Your task to perform on an android device: uninstall "Microsoft Outlook" Image 0: 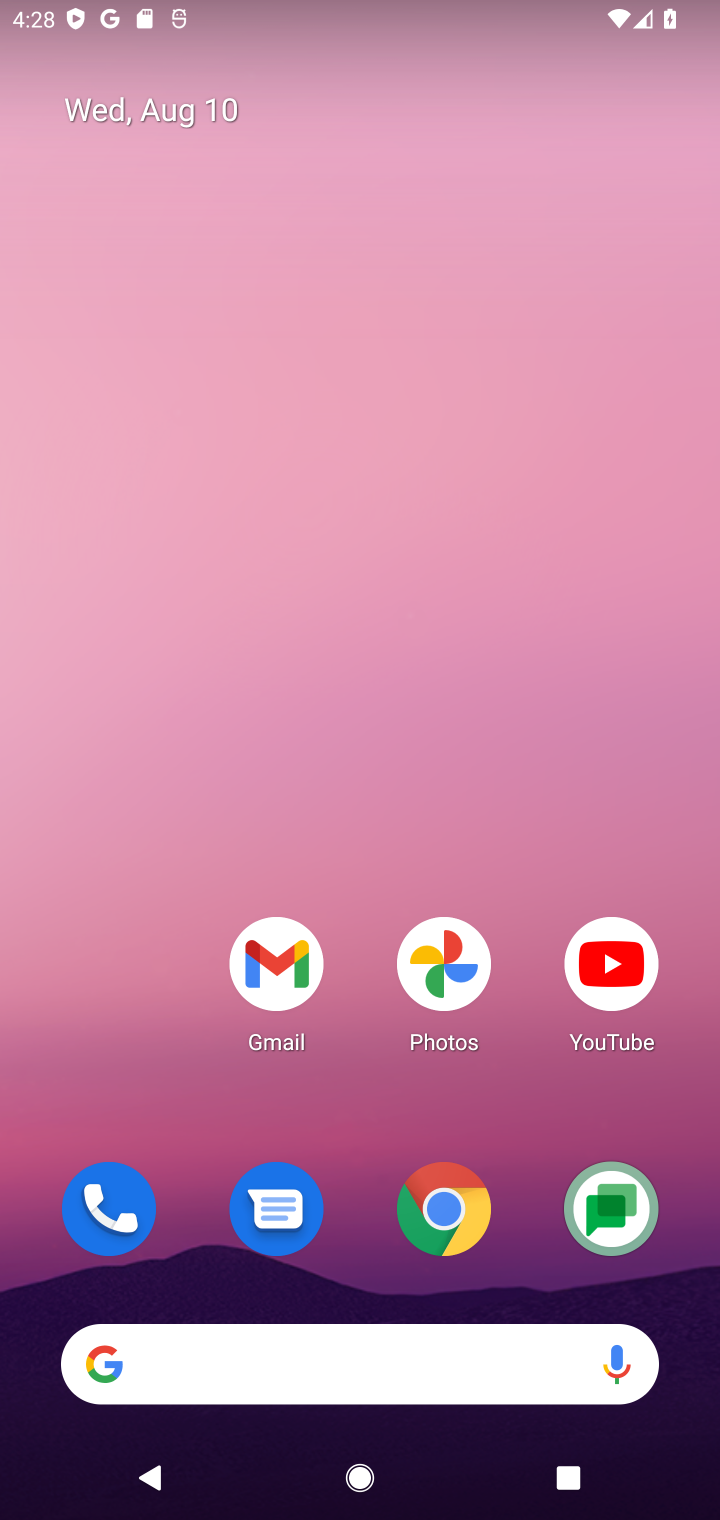
Step 0: drag from (501, 1294) to (522, 60)
Your task to perform on an android device: uninstall "Microsoft Outlook" Image 1: 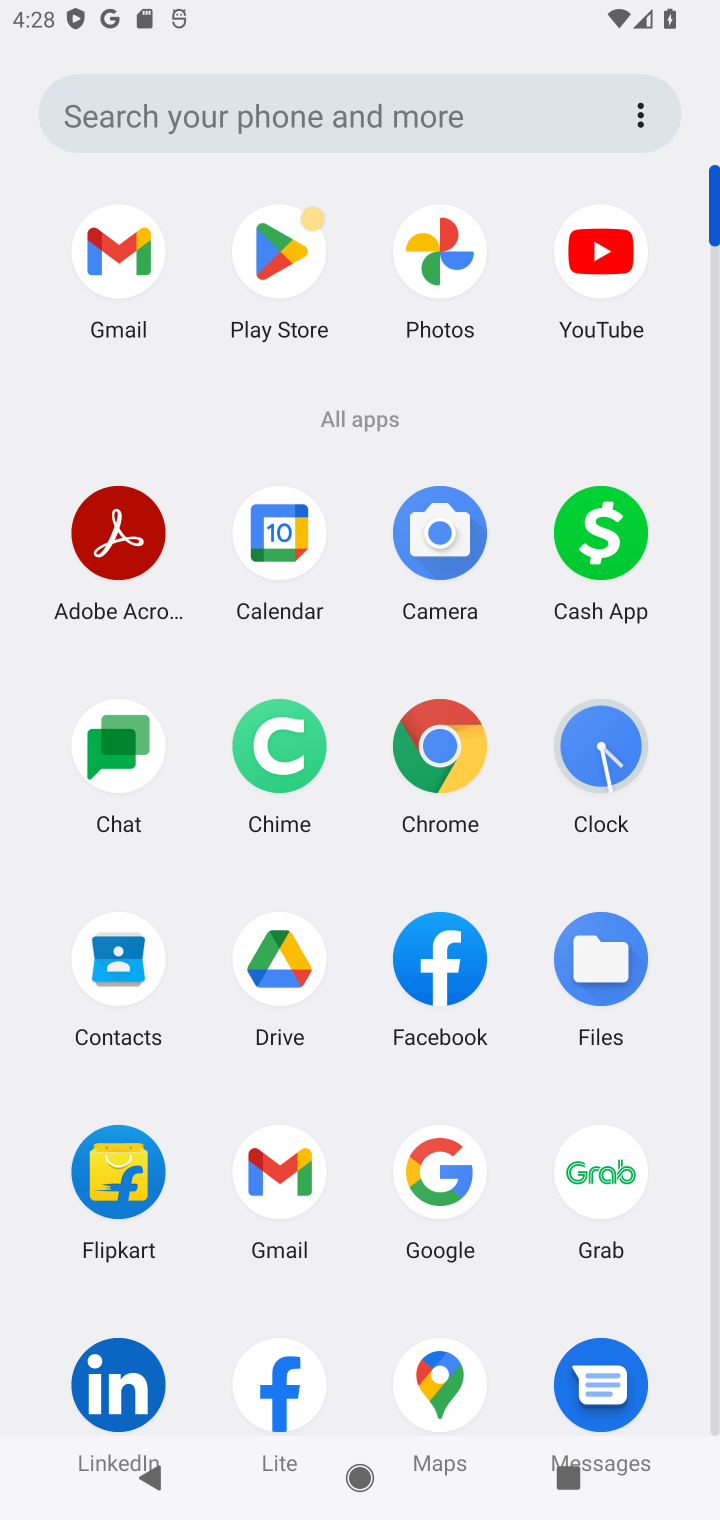
Step 1: click (268, 249)
Your task to perform on an android device: uninstall "Microsoft Outlook" Image 2: 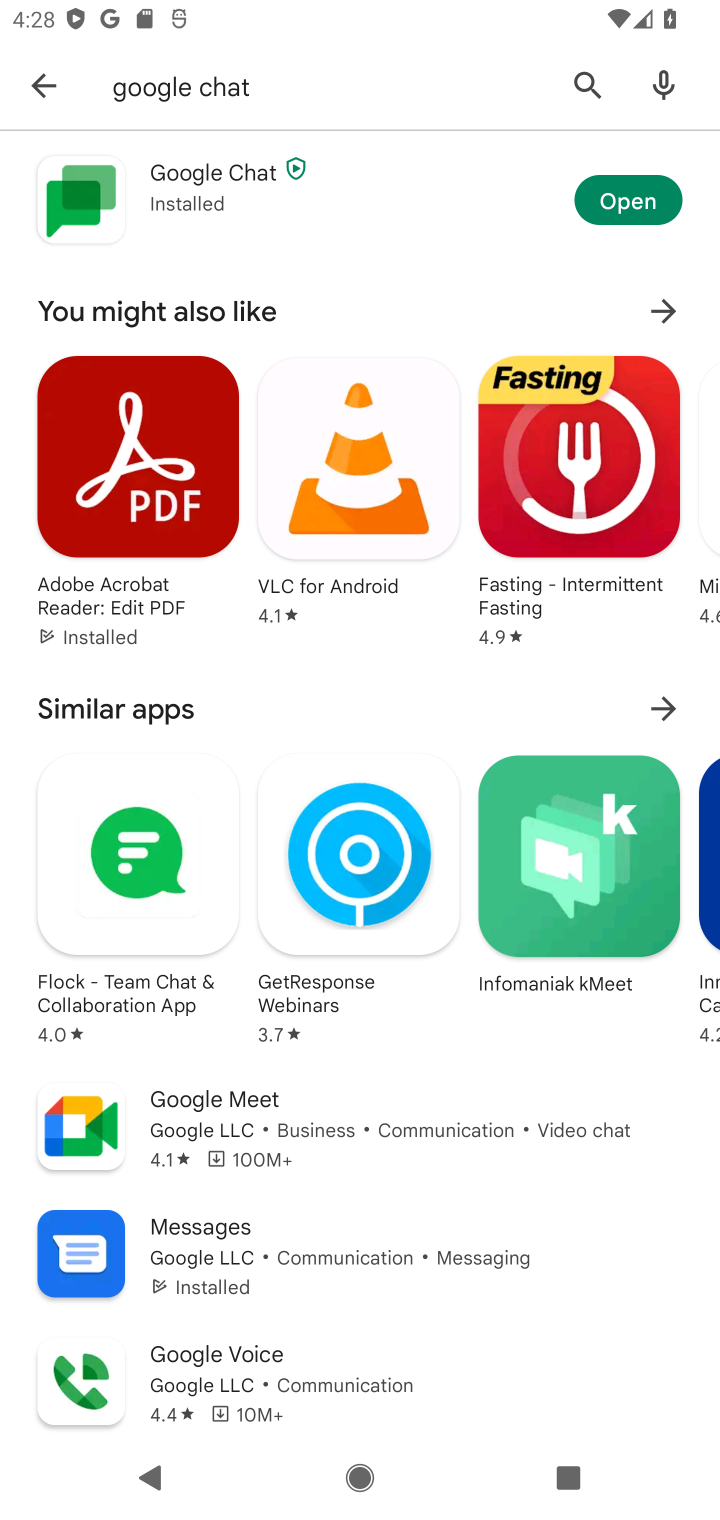
Step 2: click (556, 74)
Your task to perform on an android device: uninstall "Microsoft Outlook" Image 3: 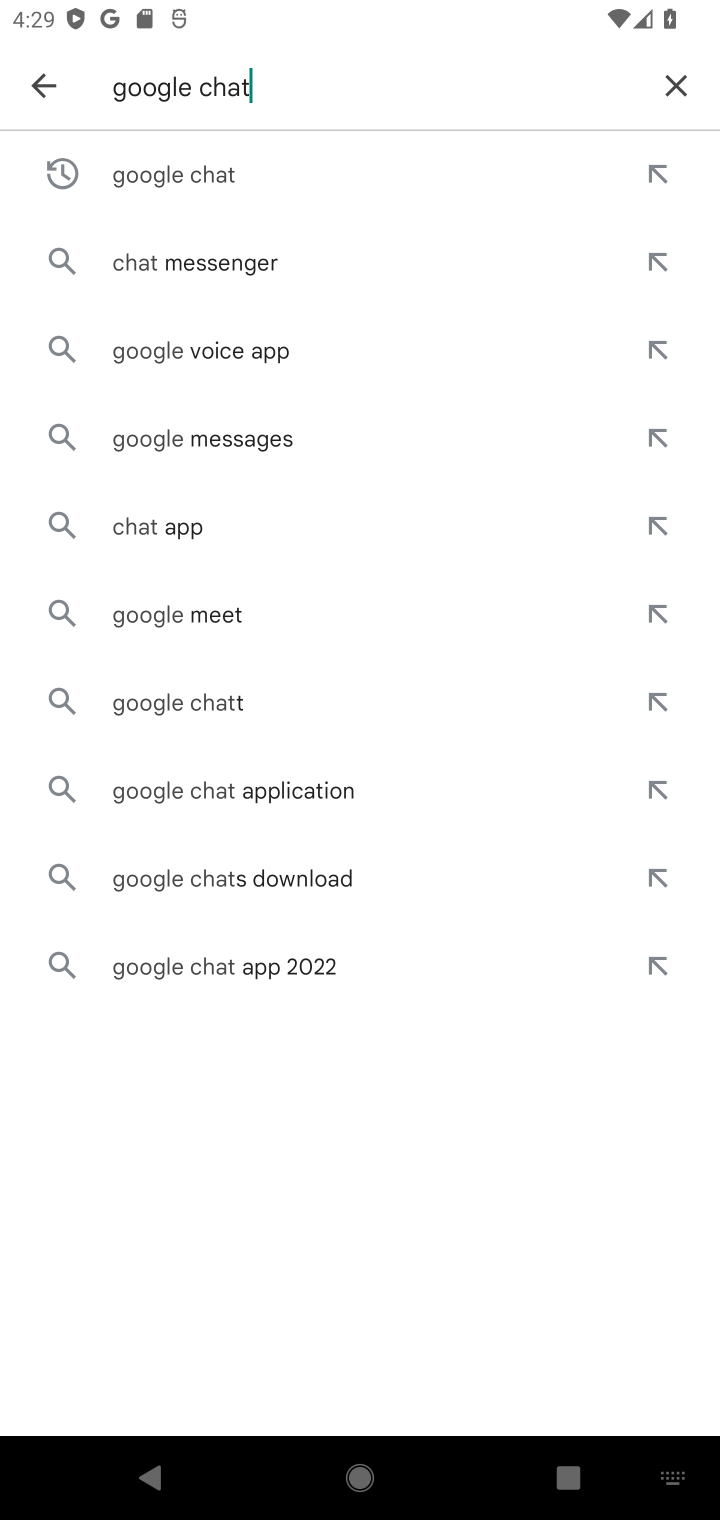
Step 3: click (690, 91)
Your task to perform on an android device: uninstall "Microsoft Outlook" Image 4: 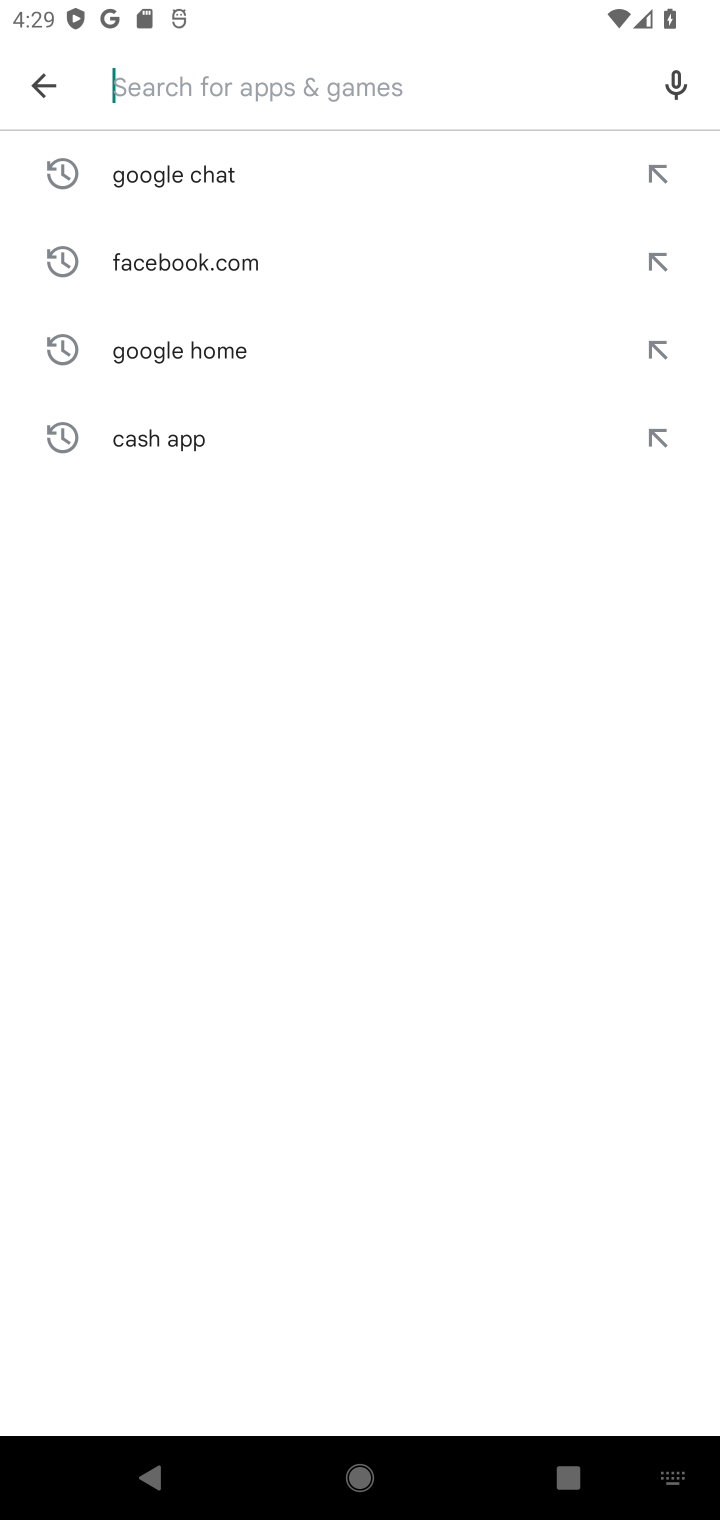
Step 4: type "microft outlook"
Your task to perform on an android device: uninstall "Microsoft Outlook" Image 5: 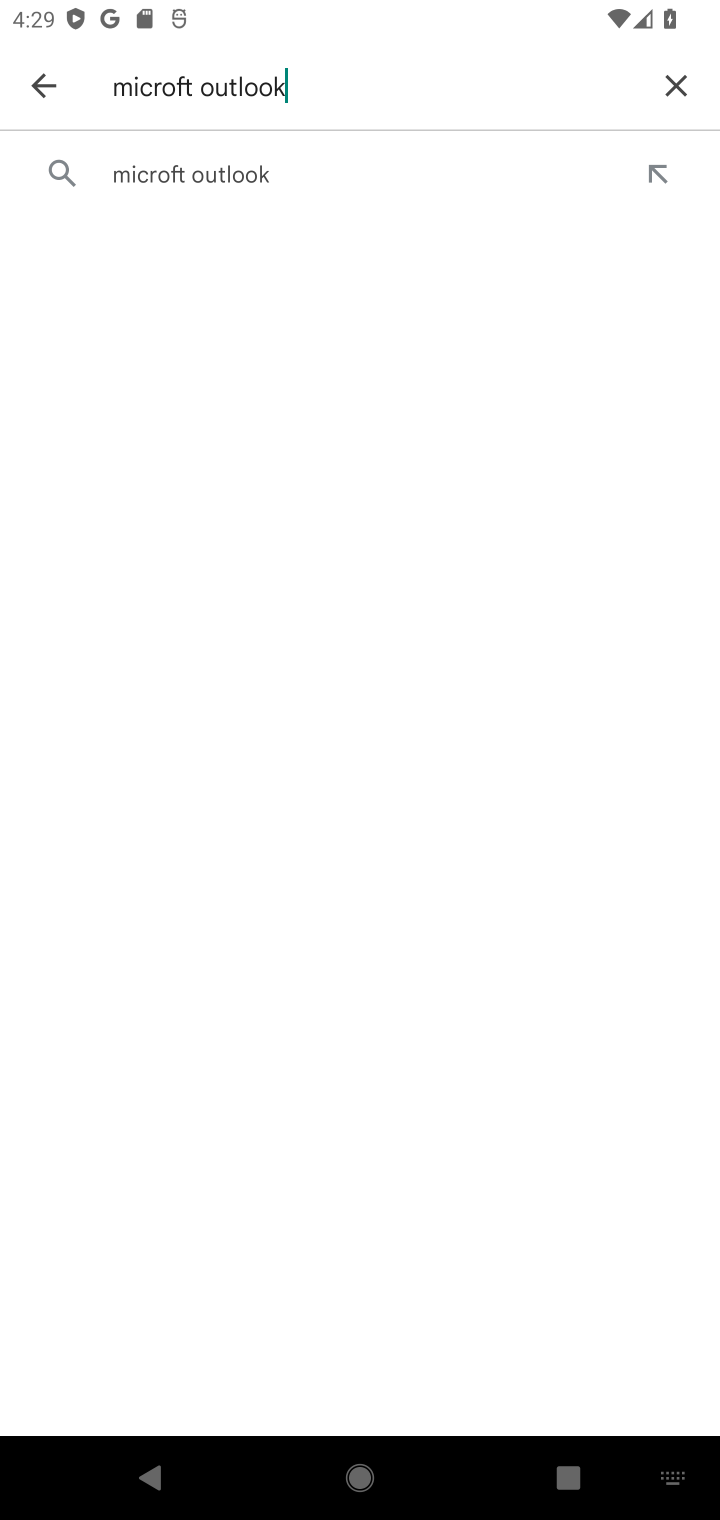
Step 5: click (127, 194)
Your task to perform on an android device: uninstall "Microsoft Outlook" Image 6: 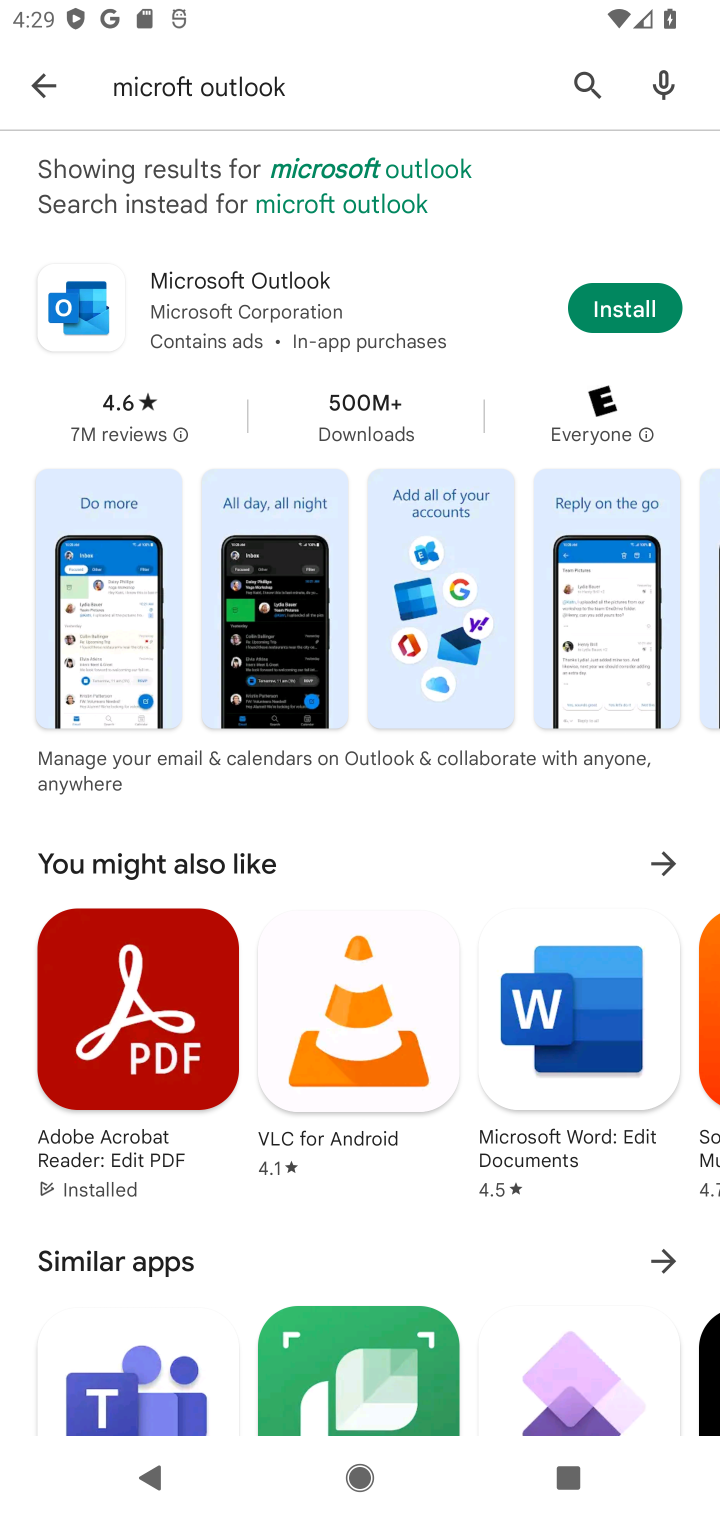
Step 6: click (544, 277)
Your task to perform on an android device: uninstall "Microsoft Outlook" Image 7: 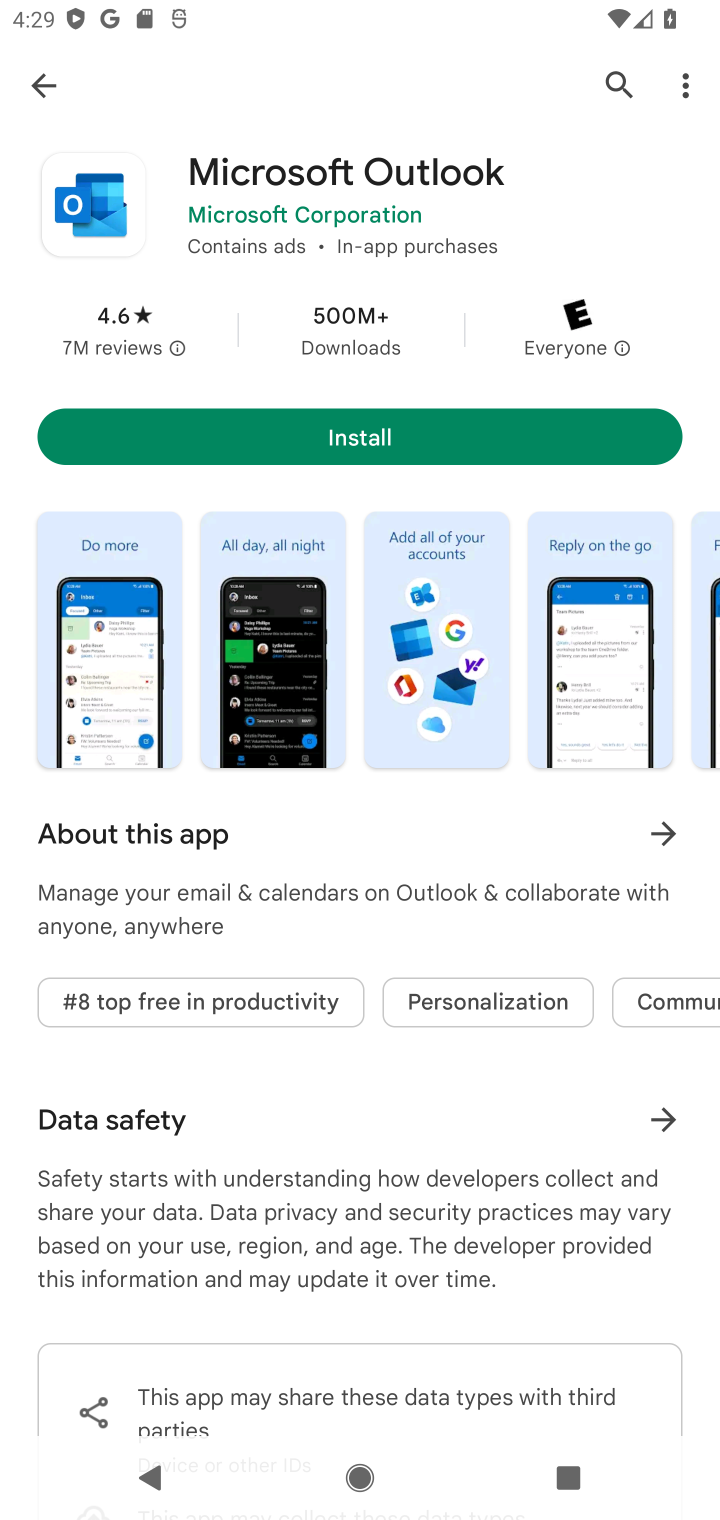
Step 7: click (429, 468)
Your task to perform on an android device: uninstall "Microsoft Outlook" Image 8: 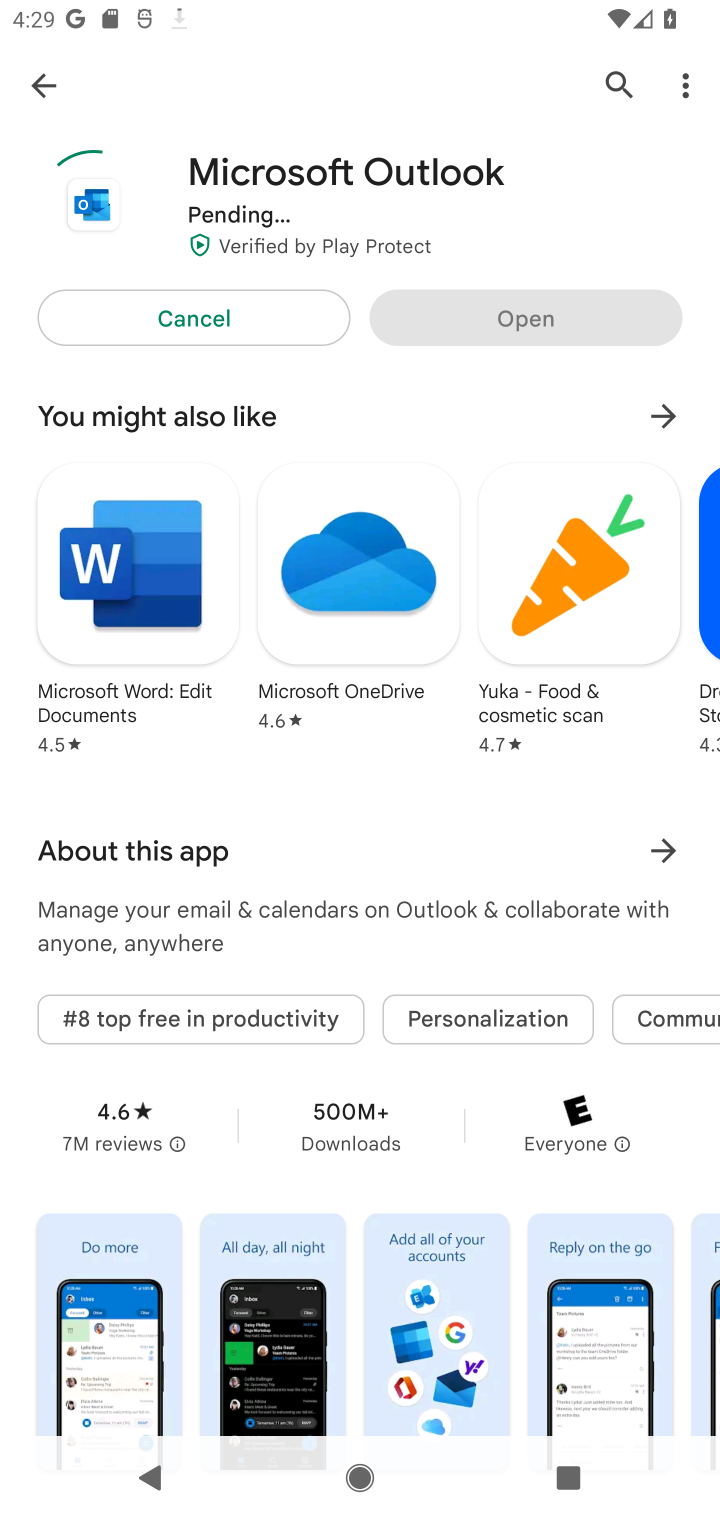
Step 8: task complete